Your task to perform on an android device: Show me popular games on the Play Store Image 0: 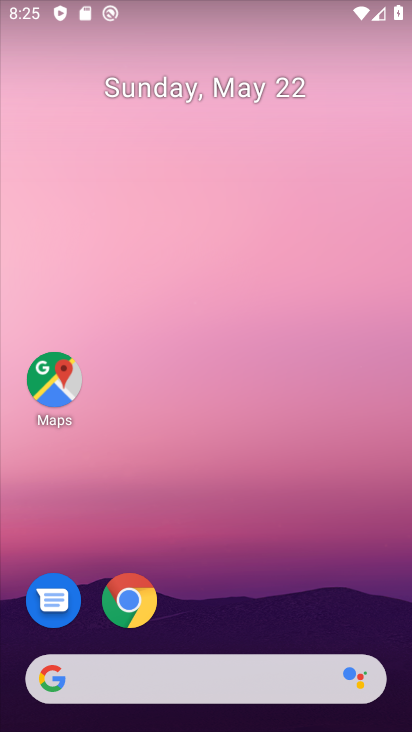
Step 0: drag from (198, 622) to (205, 265)
Your task to perform on an android device: Show me popular games on the Play Store Image 1: 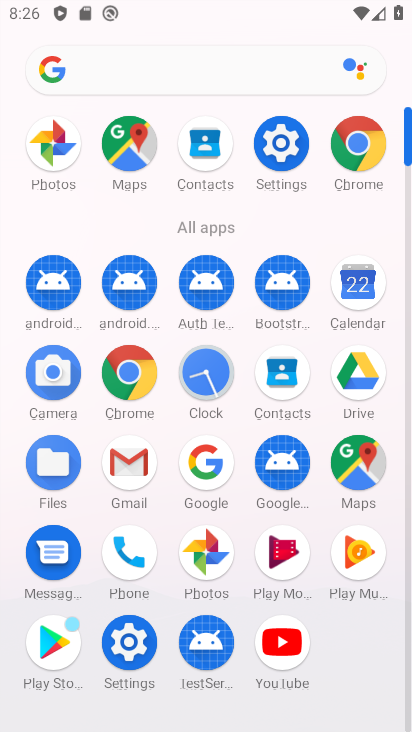
Step 1: click (65, 632)
Your task to perform on an android device: Show me popular games on the Play Store Image 2: 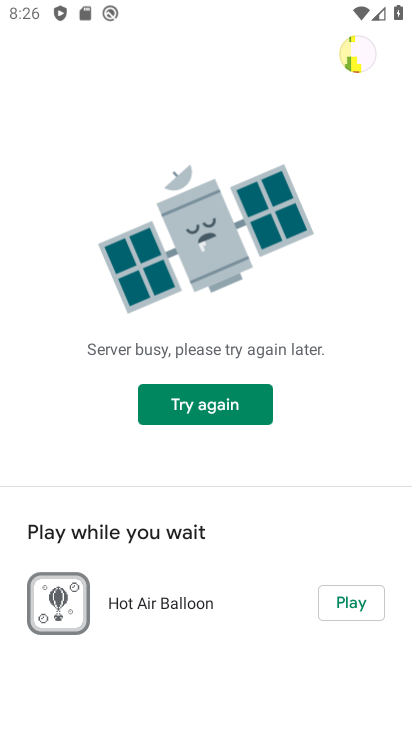
Step 2: task complete